Your task to perform on an android device: set the timer Image 0: 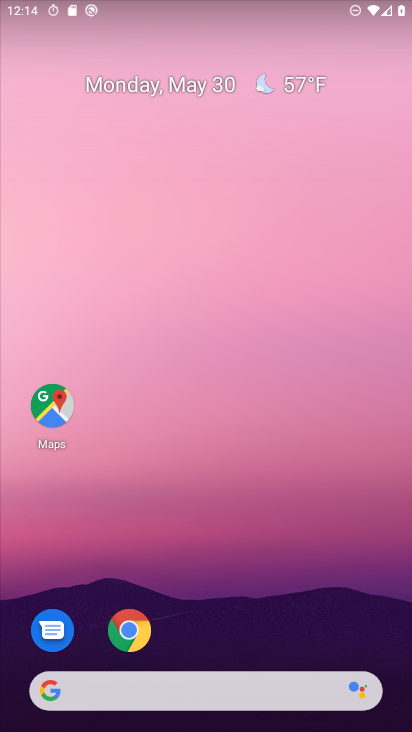
Step 0: drag from (222, 526) to (226, 208)
Your task to perform on an android device: set the timer Image 1: 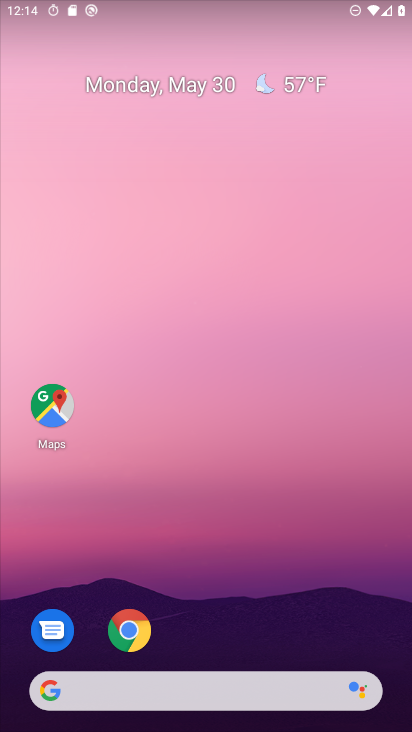
Step 1: drag from (267, 719) to (216, 187)
Your task to perform on an android device: set the timer Image 2: 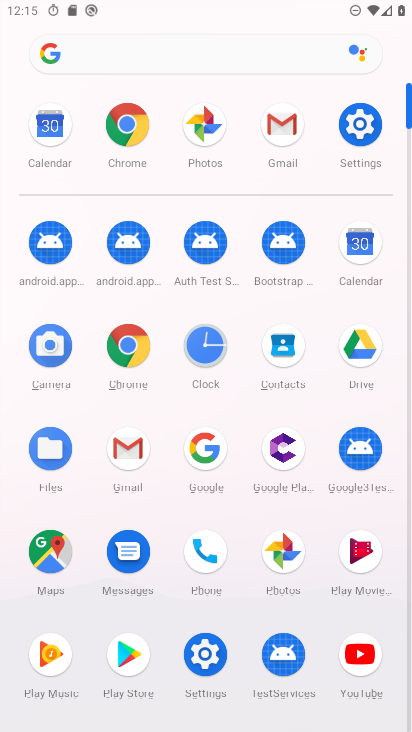
Step 2: click (216, 347)
Your task to perform on an android device: set the timer Image 3: 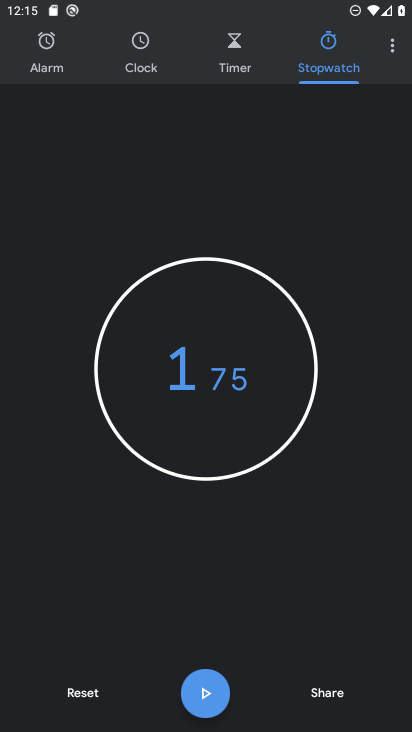
Step 3: click (234, 53)
Your task to perform on an android device: set the timer Image 4: 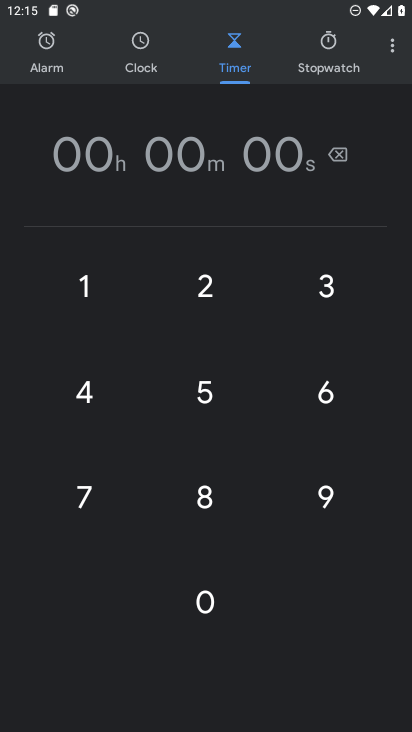
Step 4: click (212, 373)
Your task to perform on an android device: set the timer Image 5: 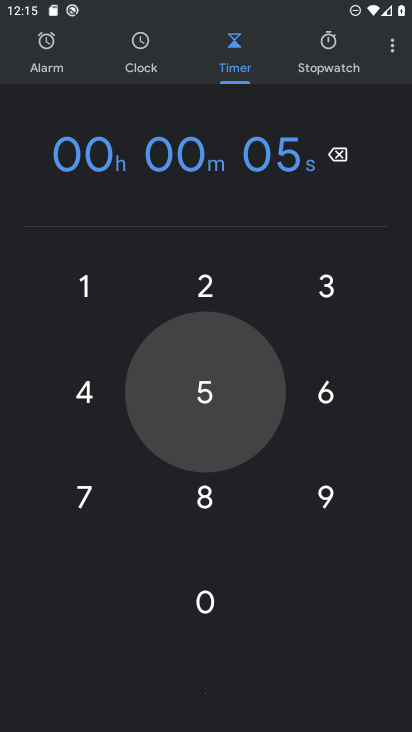
Step 5: click (74, 387)
Your task to perform on an android device: set the timer Image 6: 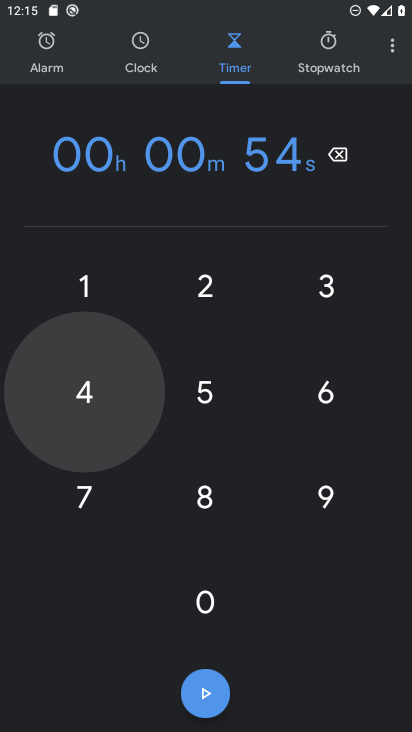
Step 6: click (188, 480)
Your task to perform on an android device: set the timer Image 7: 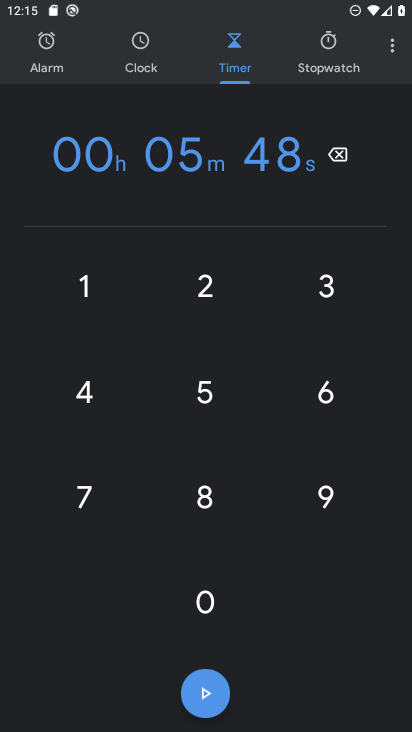
Step 7: click (97, 287)
Your task to perform on an android device: set the timer Image 8: 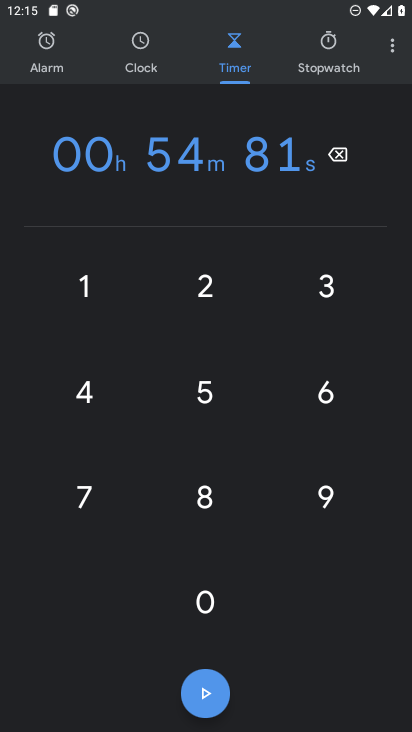
Step 8: click (266, 423)
Your task to perform on an android device: set the timer Image 9: 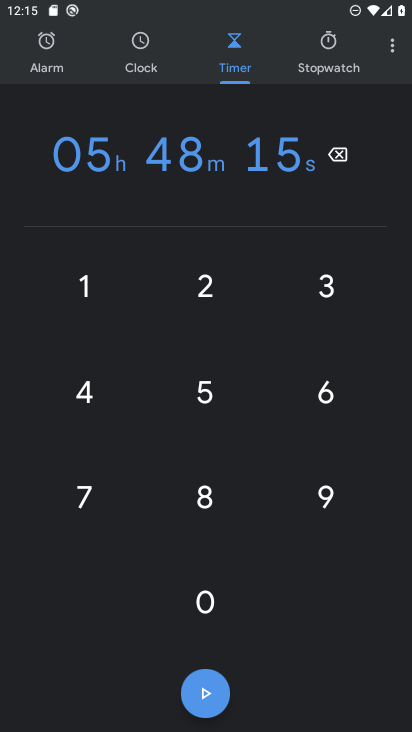
Step 9: task complete